Your task to perform on an android device: toggle sleep mode Image 0: 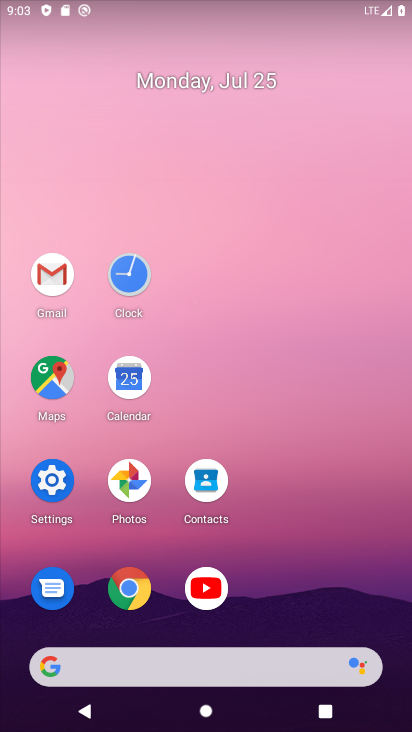
Step 0: click (49, 482)
Your task to perform on an android device: toggle sleep mode Image 1: 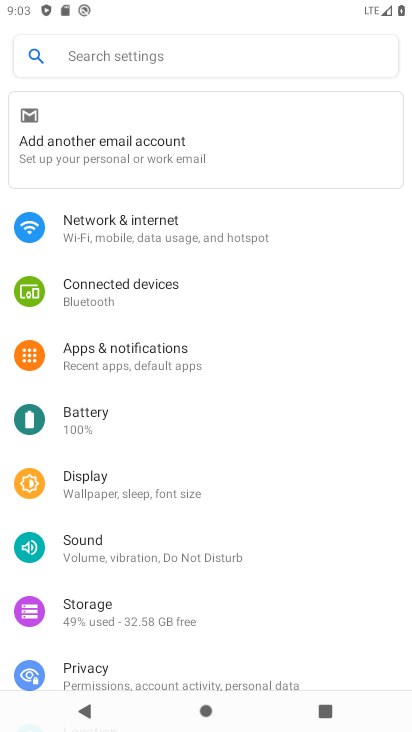
Step 1: click (88, 478)
Your task to perform on an android device: toggle sleep mode Image 2: 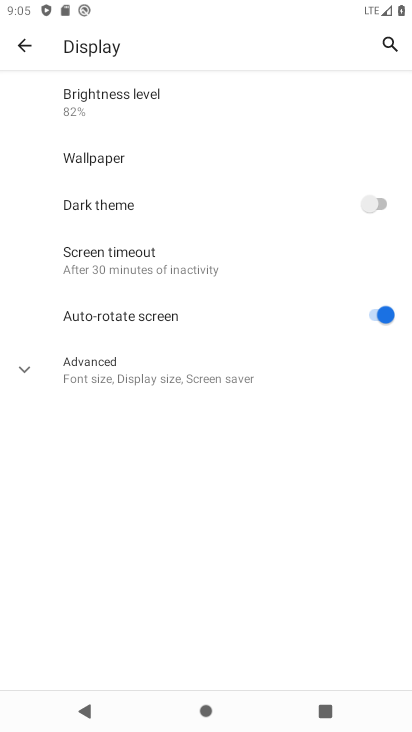
Step 2: task complete